Your task to perform on an android device: remove spam from my inbox in the gmail app Image 0: 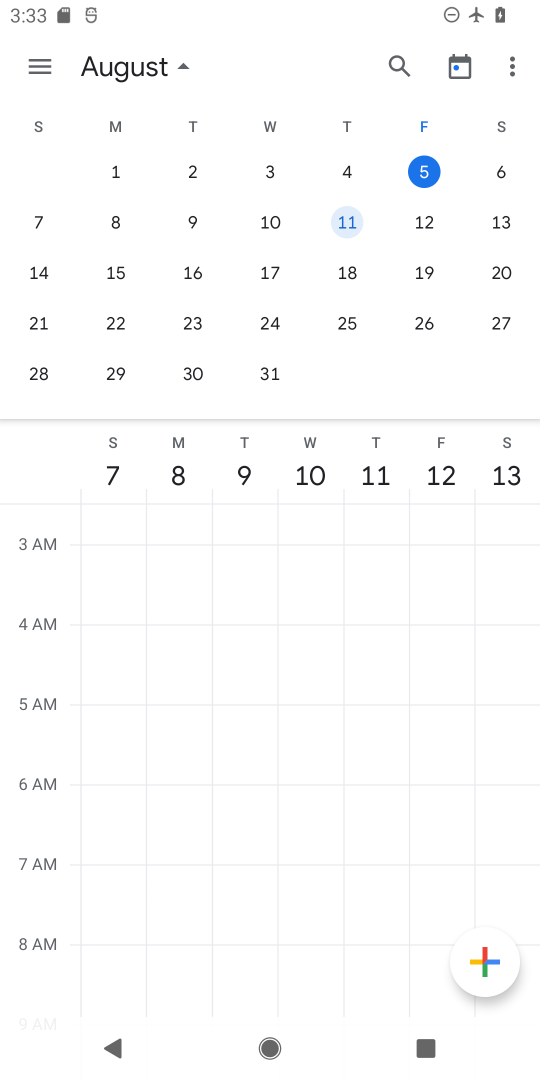
Step 0: press home button
Your task to perform on an android device: remove spam from my inbox in the gmail app Image 1: 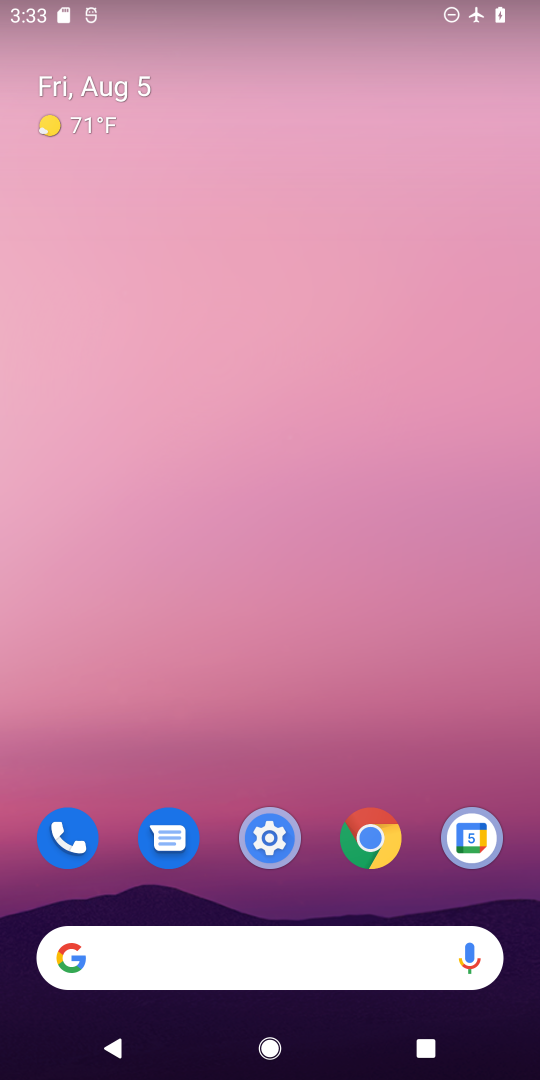
Step 1: drag from (424, 764) to (378, 83)
Your task to perform on an android device: remove spam from my inbox in the gmail app Image 2: 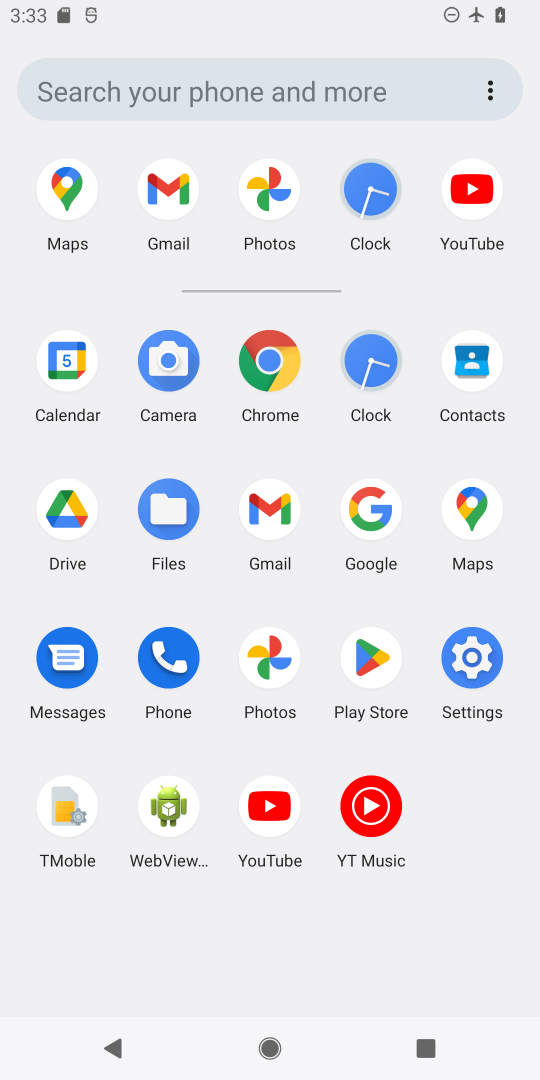
Step 2: click (186, 210)
Your task to perform on an android device: remove spam from my inbox in the gmail app Image 3: 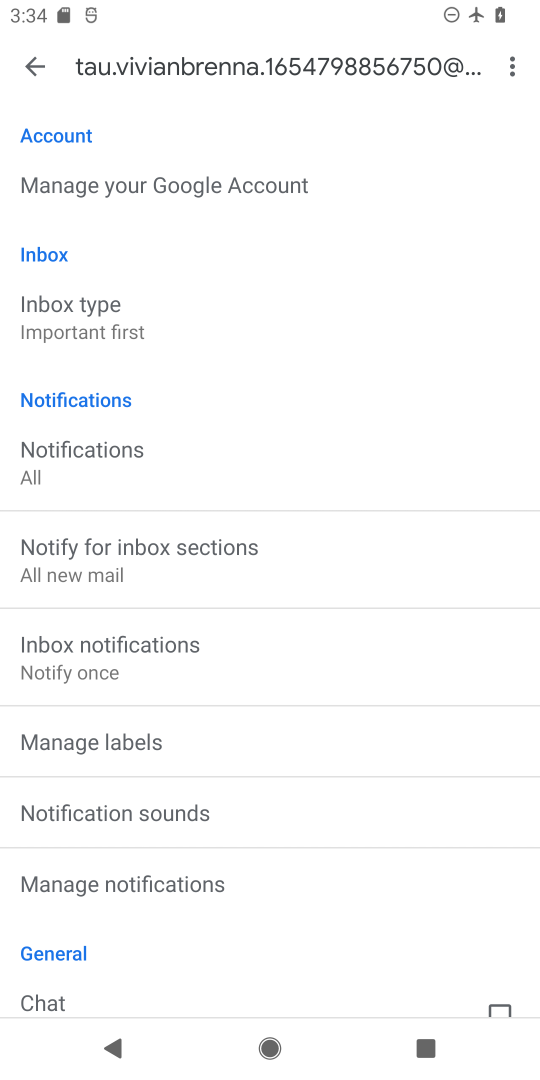
Step 3: click (39, 74)
Your task to perform on an android device: remove spam from my inbox in the gmail app Image 4: 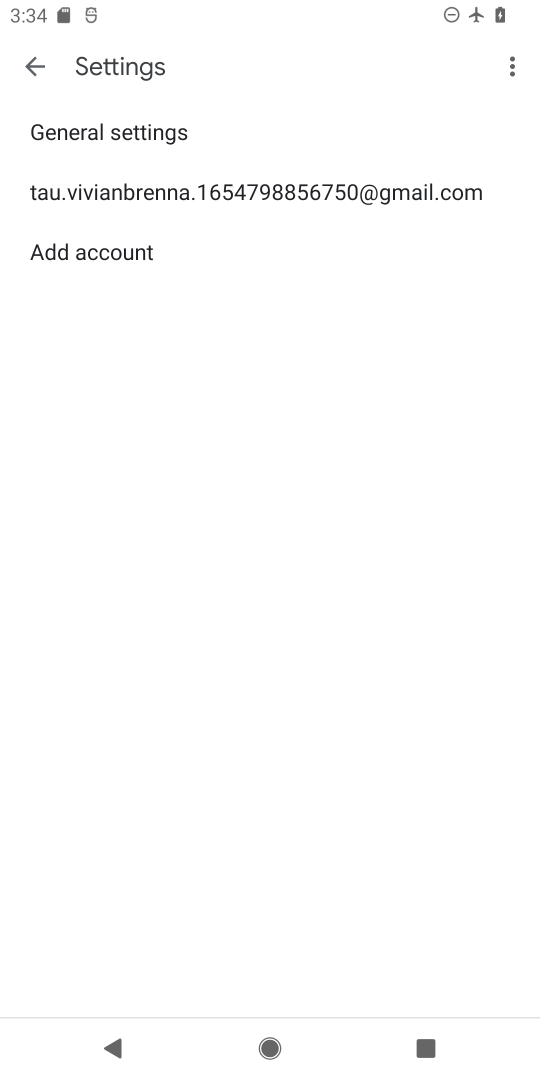
Step 4: click (53, 76)
Your task to perform on an android device: remove spam from my inbox in the gmail app Image 5: 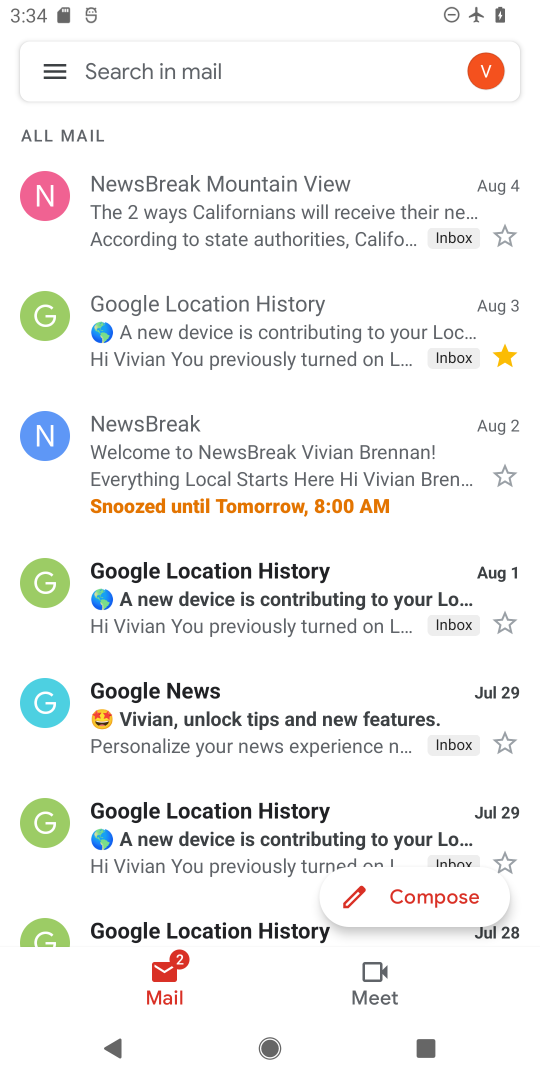
Step 5: click (53, 81)
Your task to perform on an android device: remove spam from my inbox in the gmail app Image 6: 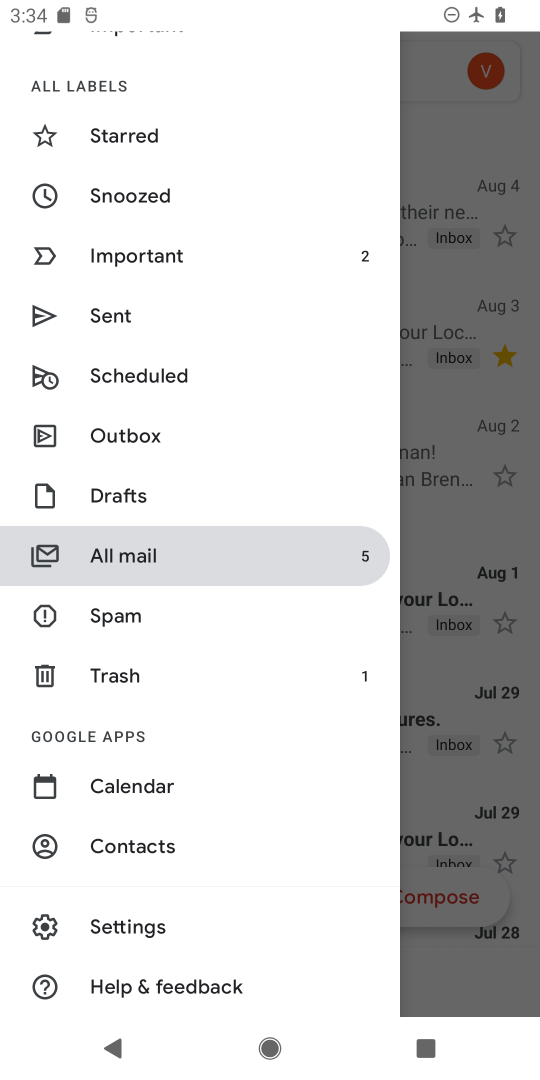
Step 6: click (99, 603)
Your task to perform on an android device: remove spam from my inbox in the gmail app Image 7: 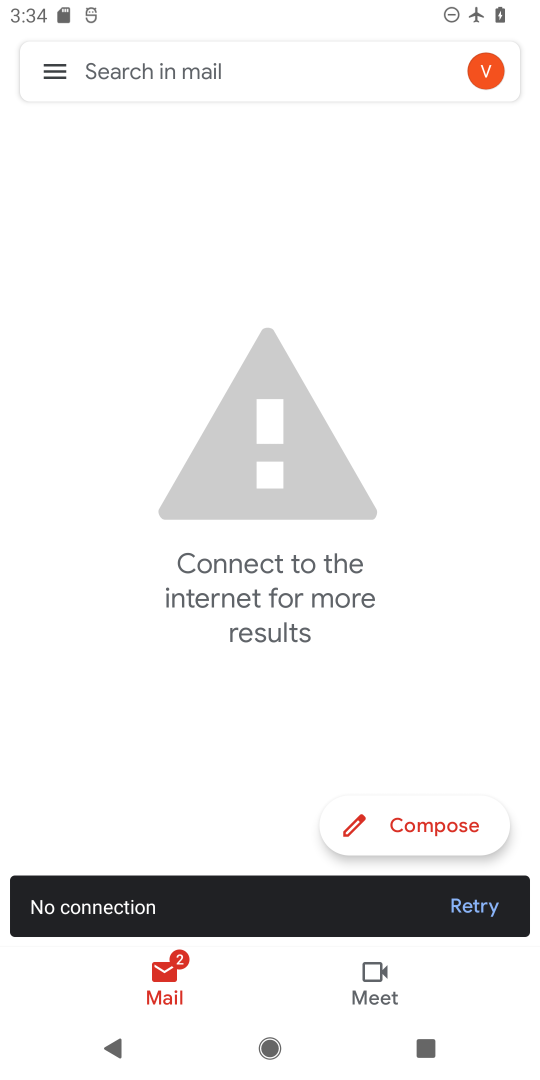
Step 7: task complete